Your task to perform on an android device: open wifi settings Image 0: 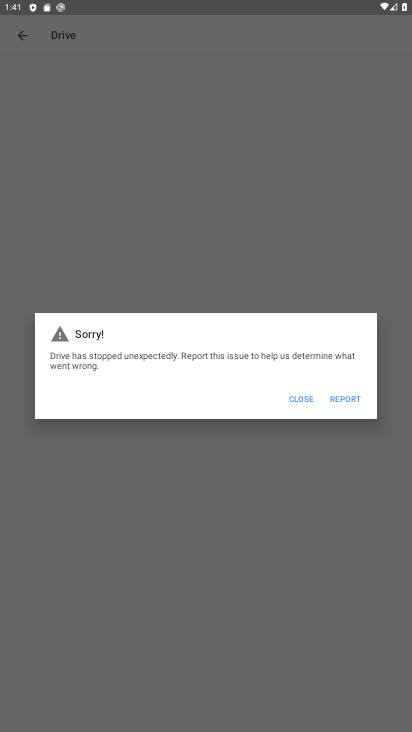
Step 0: press home button
Your task to perform on an android device: open wifi settings Image 1: 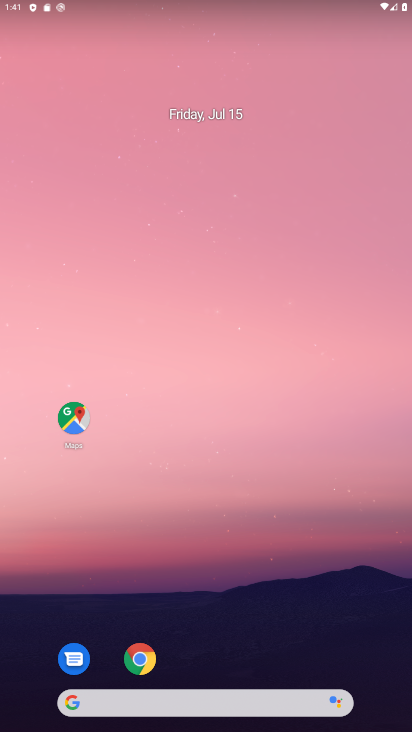
Step 1: drag from (180, 690) to (180, 152)
Your task to perform on an android device: open wifi settings Image 2: 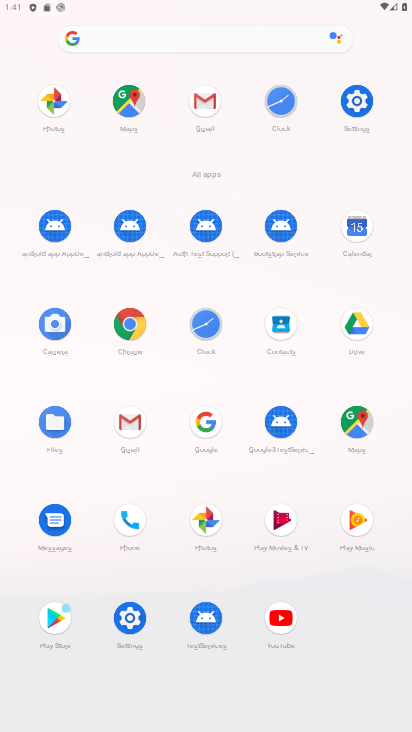
Step 2: click (361, 109)
Your task to perform on an android device: open wifi settings Image 3: 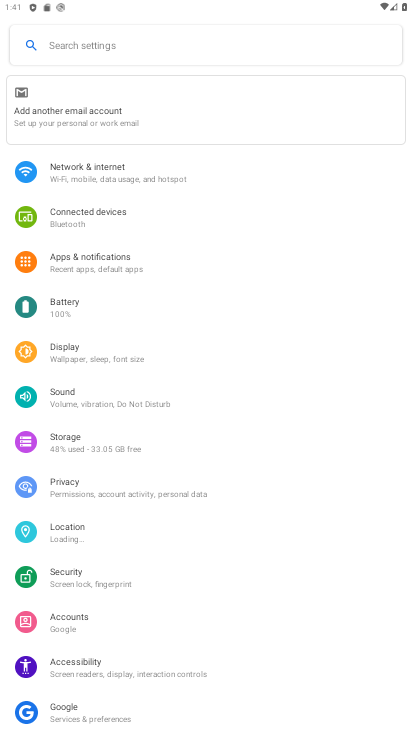
Step 3: click (82, 171)
Your task to perform on an android device: open wifi settings Image 4: 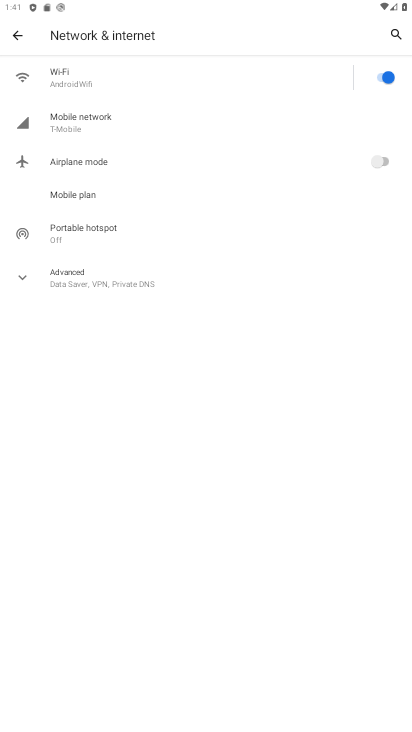
Step 4: click (102, 91)
Your task to perform on an android device: open wifi settings Image 5: 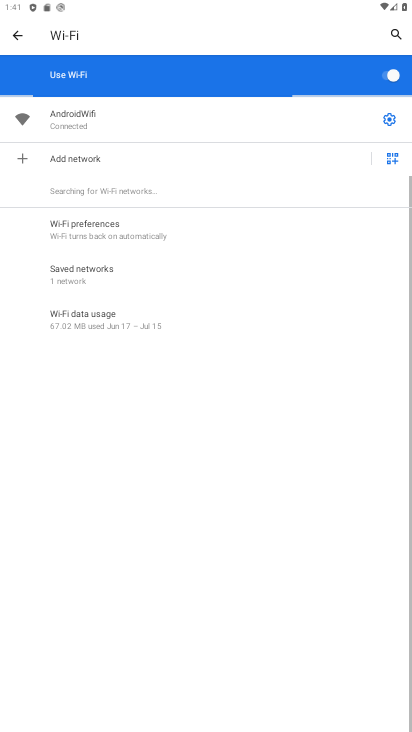
Step 5: click (388, 124)
Your task to perform on an android device: open wifi settings Image 6: 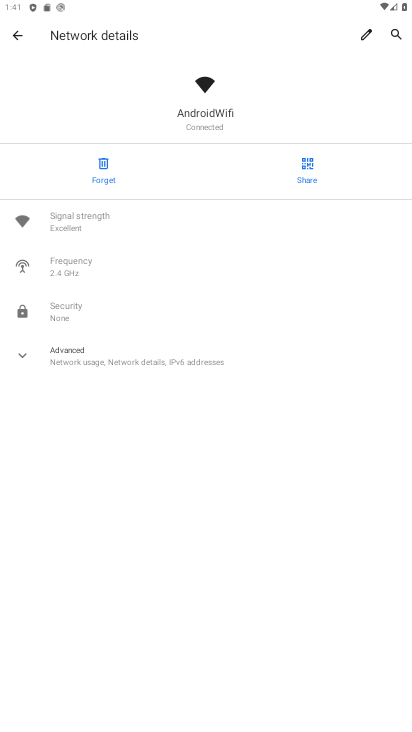
Step 6: click (71, 358)
Your task to perform on an android device: open wifi settings Image 7: 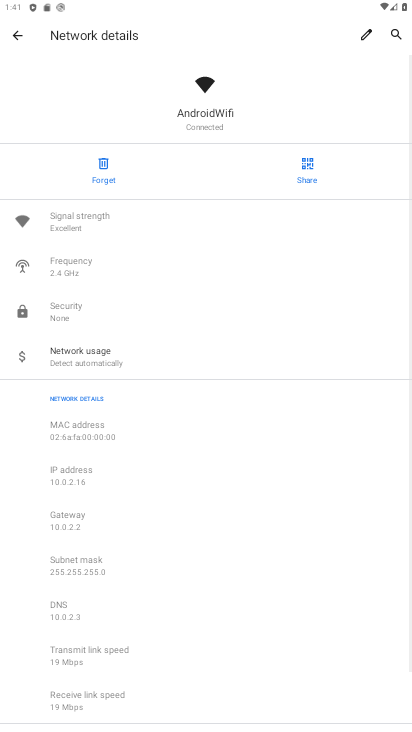
Step 7: task complete